Your task to perform on an android device: toggle notifications settings in the gmail app Image 0: 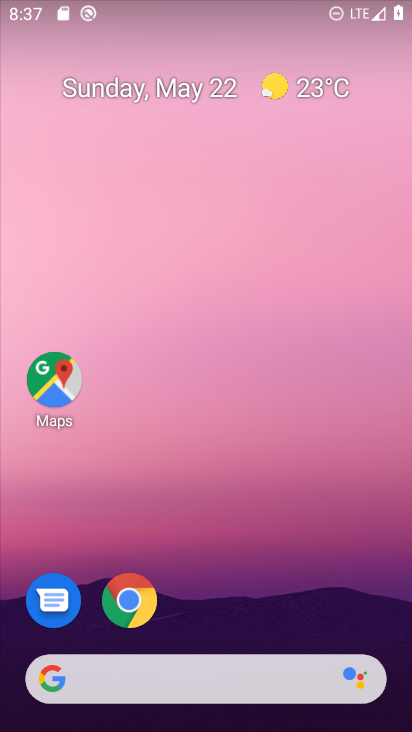
Step 0: drag from (377, 606) to (274, 61)
Your task to perform on an android device: toggle notifications settings in the gmail app Image 1: 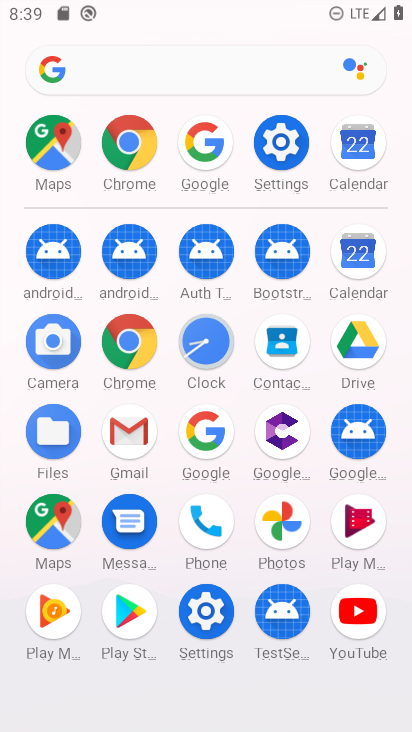
Step 1: click (144, 446)
Your task to perform on an android device: toggle notifications settings in the gmail app Image 2: 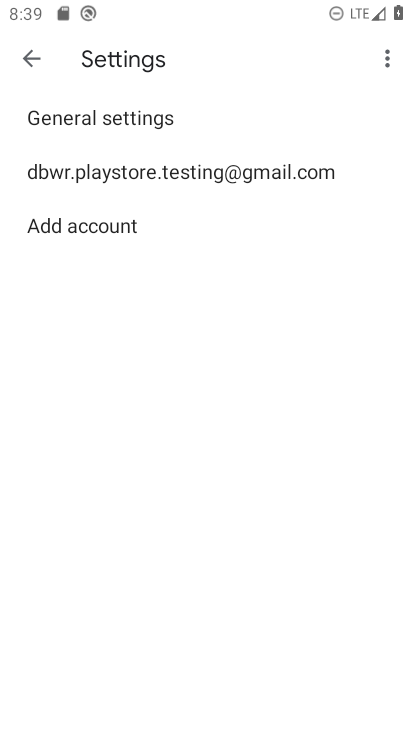
Step 2: click (224, 171)
Your task to perform on an android device: toggle notifications settings in the gmail app Image 3: 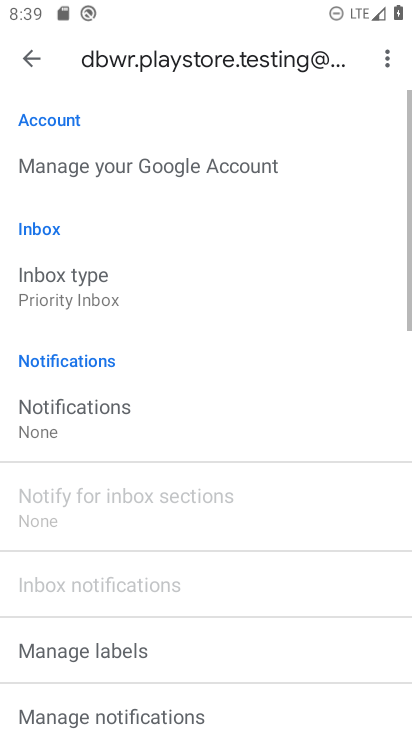
Step 3: click (125, 438)
Your task to perform on an android device: toggle notifications settings in the gmail app Image 4: 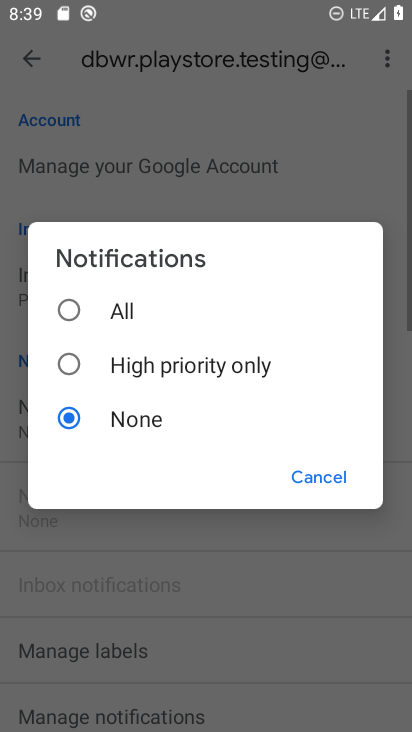
Step 4: click (112, 301)
Your task to perform on an android device: toggle notifications settings in the gmail app Image 5: 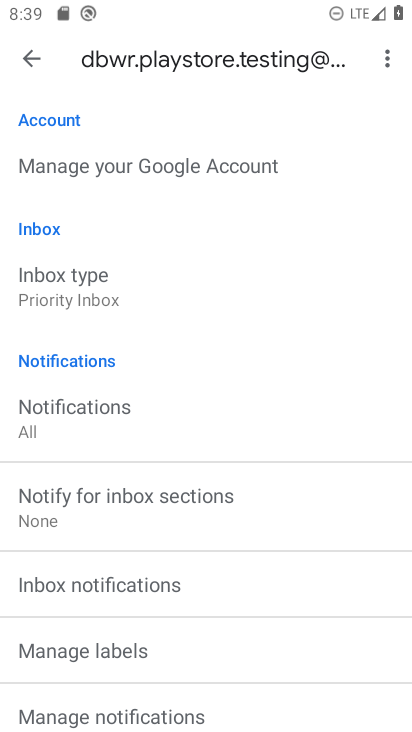
Step 5: task complete